Your task to perform on an android device: Go to calendar. Show me events next week Image 0: 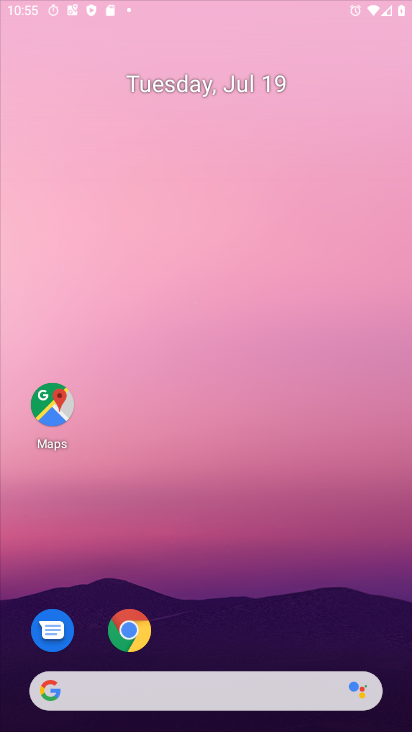
Step 0: press home button
Your task to perform on an android device: Go to calendar. Show me events next week Image 1: 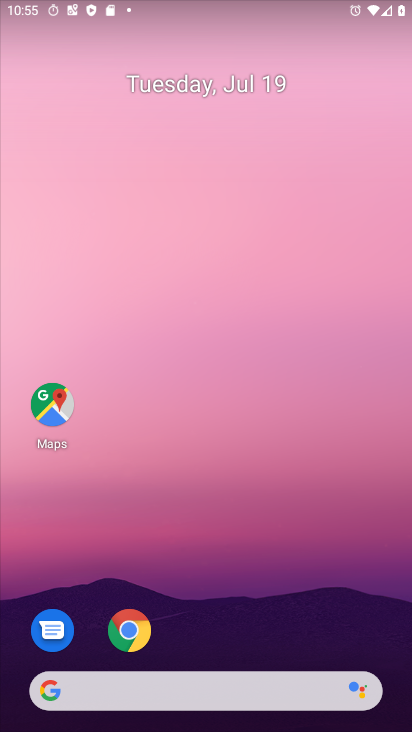
Step 1: drag from (260, 632) to (300, 156)
Your task to perform on an android device: Go to calendar. Show me events next week Image 2: 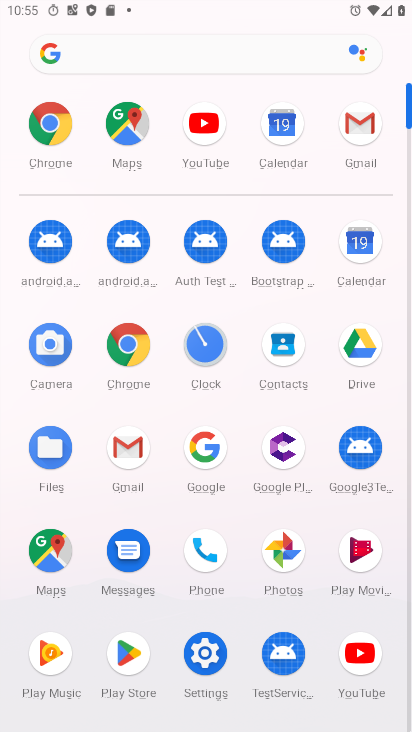
Step 2: click (362, 244)
Your task to perform on an android device: Go to calendar. Show me events next week Image 3: 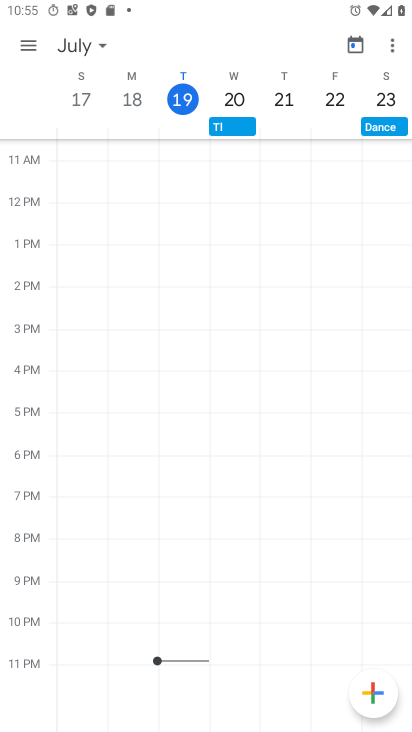
Step 3: click (28, 45)
Your task to perform on an android device: Go to calendar. Show me events next week Image 4: 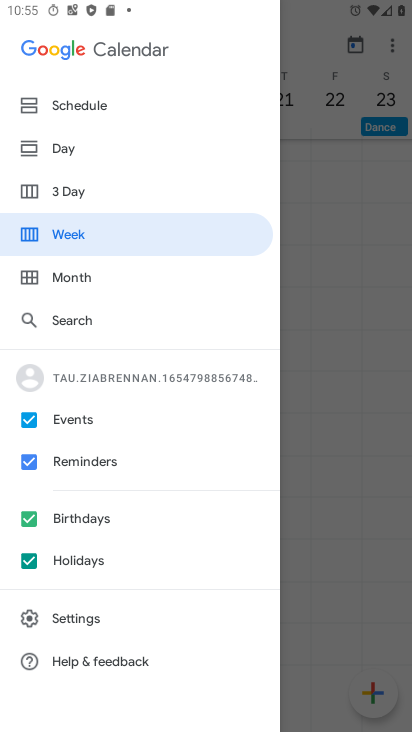
Step 4: click (75, 231)
Your task to perform on an android device: Go to calendar. Show me events next week Image 5: 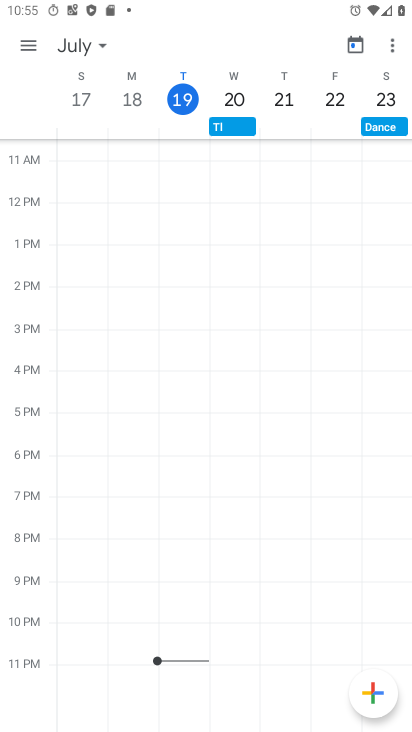
Step 5: task complete